Your task to perform on an android device: install app "Etsy: Buy & Sell Unique Items" Image 0: 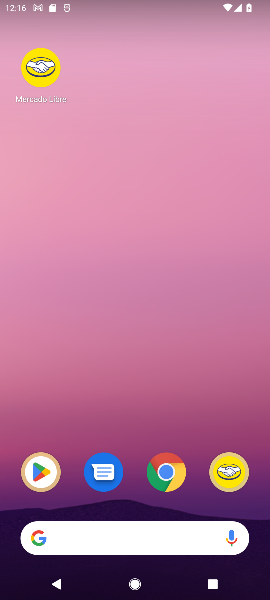
Step 0: click (42, 473)
Your task to perform on an android device: install app "Etsy: Buy & Sell Unique Items" Image 1: 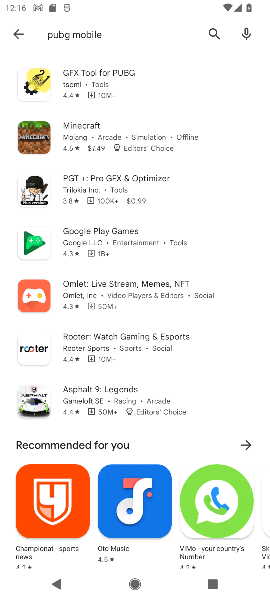
Step 1: click (211, 37)
Your task to perform on an android device: install app "Etsy: Buy & Sell Unique Items" Image 2: 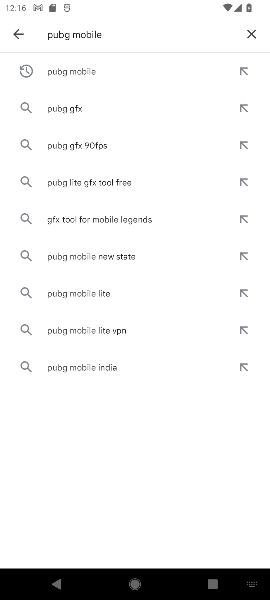
Step 2: click (256, 39)
Your task to perform on an android device: install app "Etsy: Buy & Sell Unique Items" Image 3: 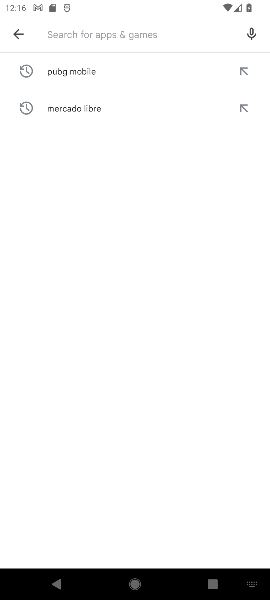
Step 3: type "etsy>buy & sell unique items"
Your task to perform on an android device: install app "Etsy: Buy & Sell Unique Items" Image 4: 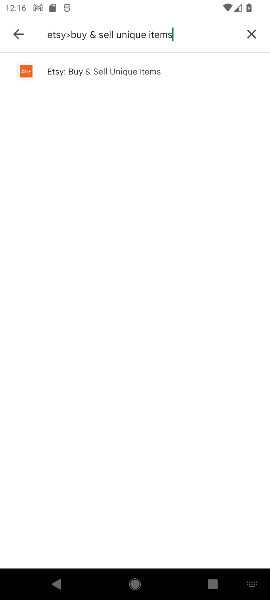
Step 4: click (184, 80)
Your task to perform on an android device: install app "Etsy: Buy & Sell Unique Items" Image 5: 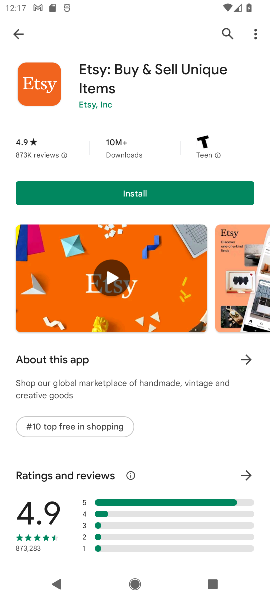
Step 5: click (109, 201)
Your task to perform on an android device: install app "Etsy: Buy & Sell Unique Items" Image 6: 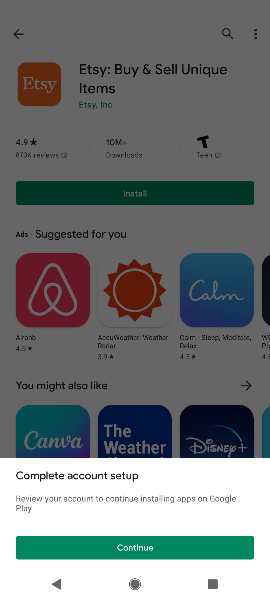
Step 6: click (163, 544)
Your task to perform on an android device: install app "Etsy: Buy & Sell Unique Items" Image 7: 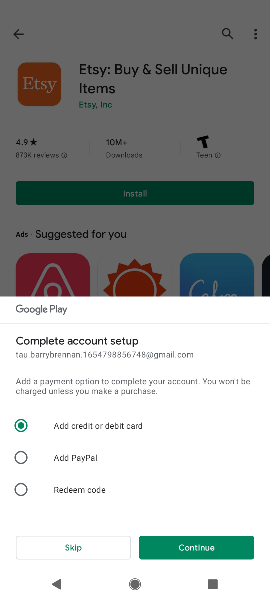
Step 7: click (111, 545)
Your task to perform on an android device: install app "Etsy: Buy & Sell Unique Items" Image 8: 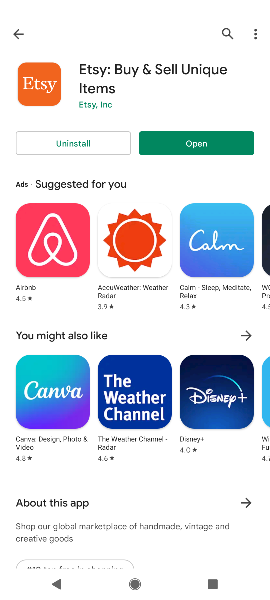
Step 8: task complete